Your task to perform on an android device: toggle airplane mode Image 0: 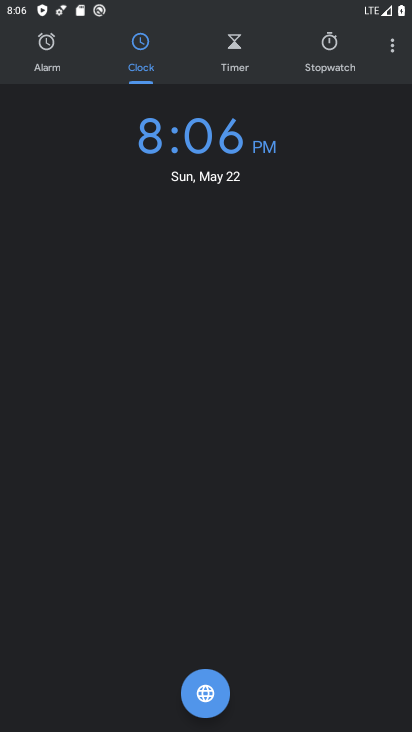
Step 0: press home button
Your task to perform on an android device: toggle airplane mode Image 1: 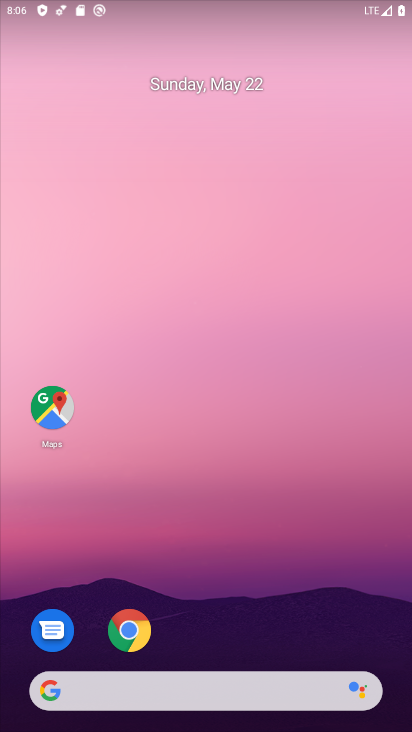
Step 1: drag from (339, 640) to (303, 38)
Your task to perform on an android device: toggle airplane mode Image 2: 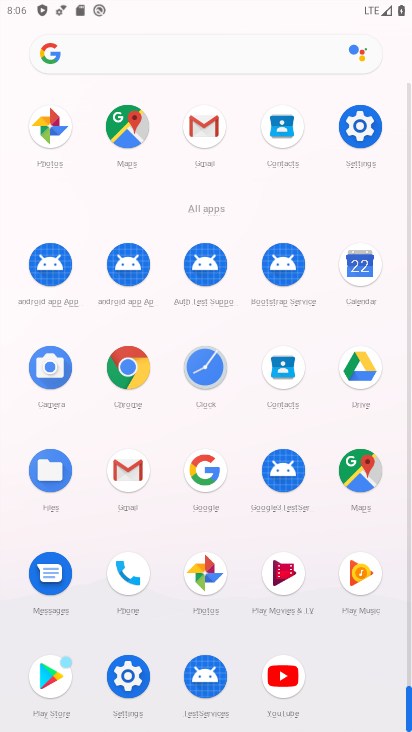
Step 2: click (125, 677)
Your task to perform on an android device: toggle airplane mode Image 3: 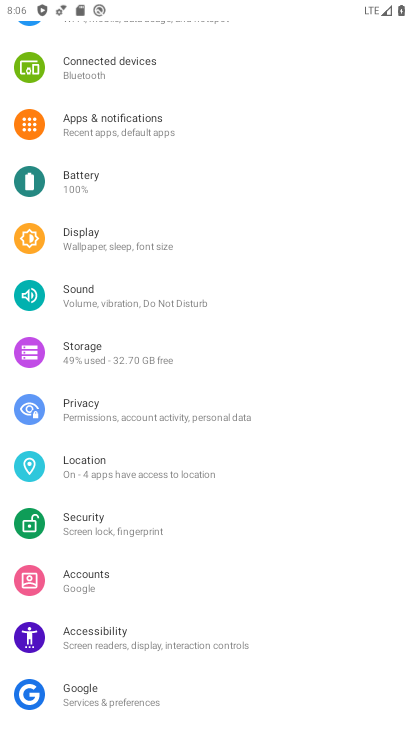
Step 3: drag from (244, 105) to (245, 427)
Your task to perform on an android device: toggle airplane mode Image 4: 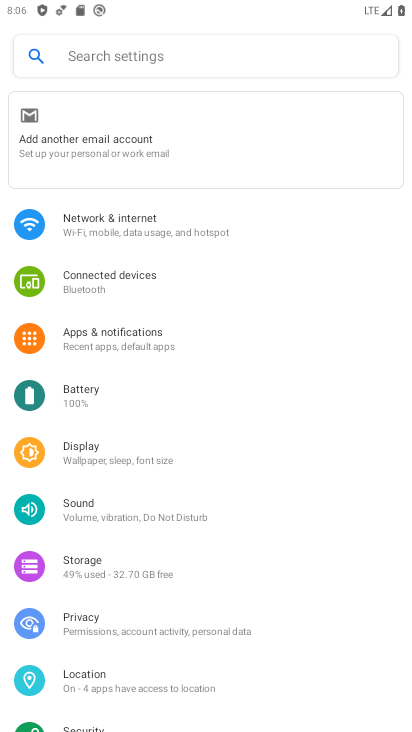
Step 4: click (121, 224)
Your task to perform on an android device: toggle airplane mode Image 5: 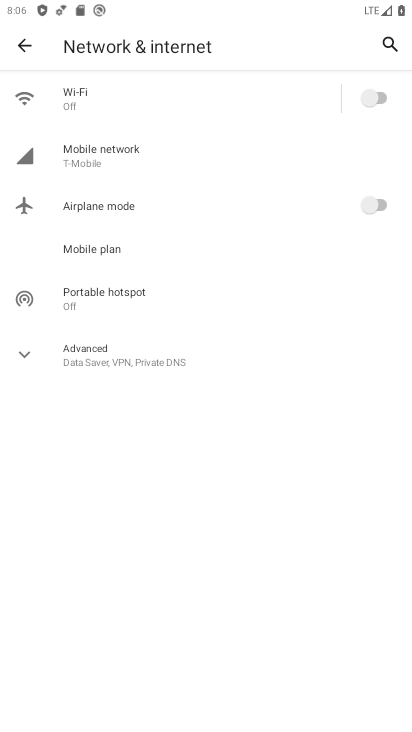
Step 5: click (384, 203)
Your task to perform on an android device: toggle airplane mode Image 6: 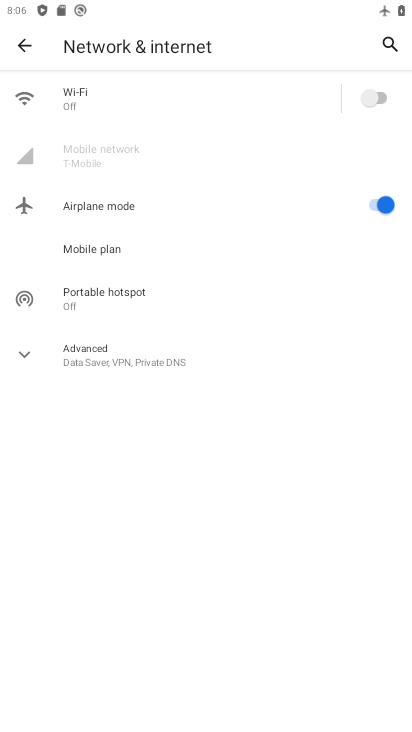
Step 6: task complete